Your task to perform on an android device: turn pop-ups off in chrome Image 0: 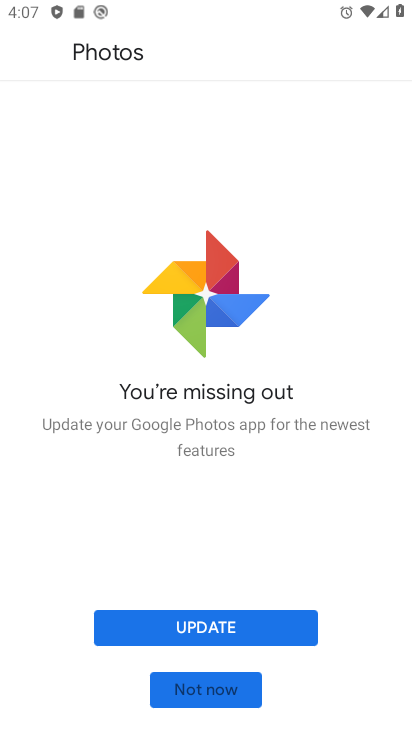
Step 0: press home button
Your task to perform on an android device: turn pop-ups off in chrome Image 1: 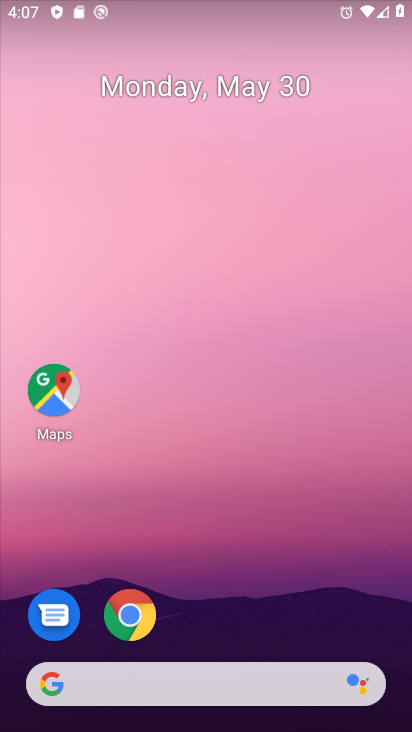
Step 1: click (140, 608)
Your task to perform on an android device: turn pop-ups off in chrome Image 2: 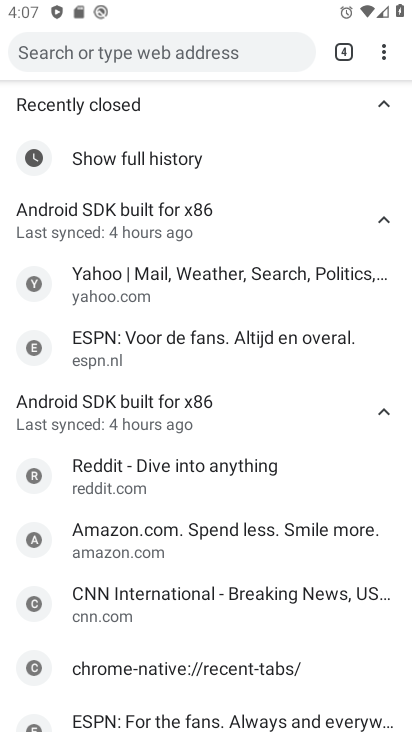
Step 2: click (383, 45)
Your task to perform on an android device: turn pop-ups off in chrome Image 3: 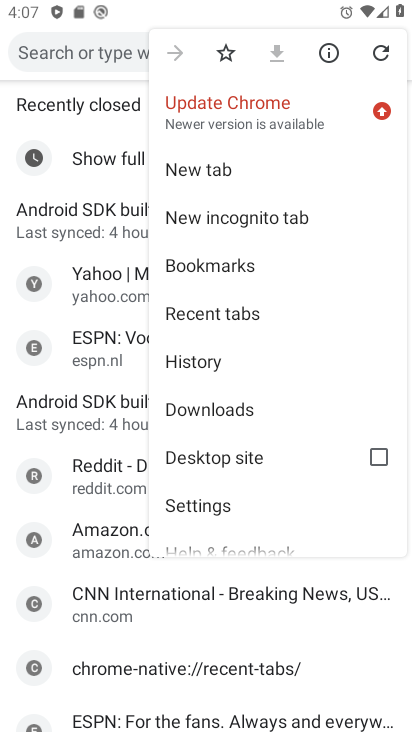
Step 3: click (236, 502)
Your task to perform on an android device: turn pop-ups off in chrome Image 4: 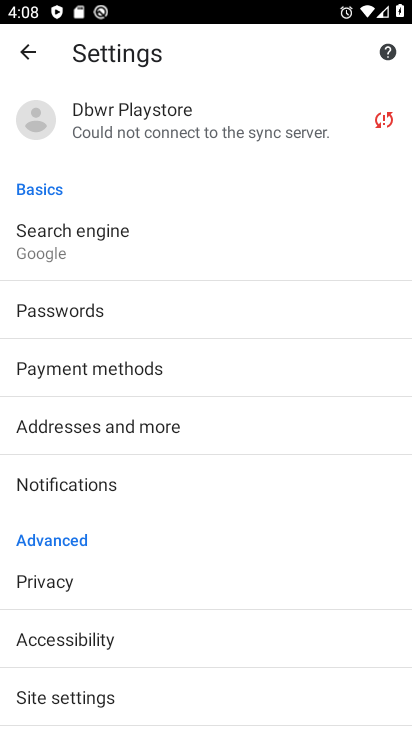
Step 4: drag from (204, 650) to (236, 456)
Your task to perform on an android device: turn pop-ups off in chrome Image 5: 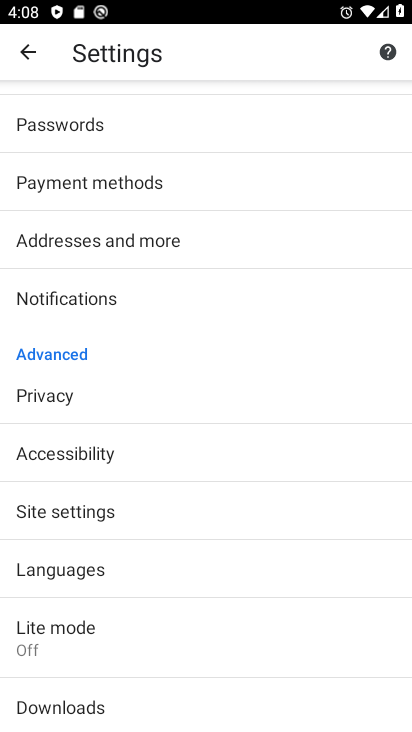
Step 5: click (220, 514)
Your task to perform on an android device: turn pop-ups off in chrome Image 6: 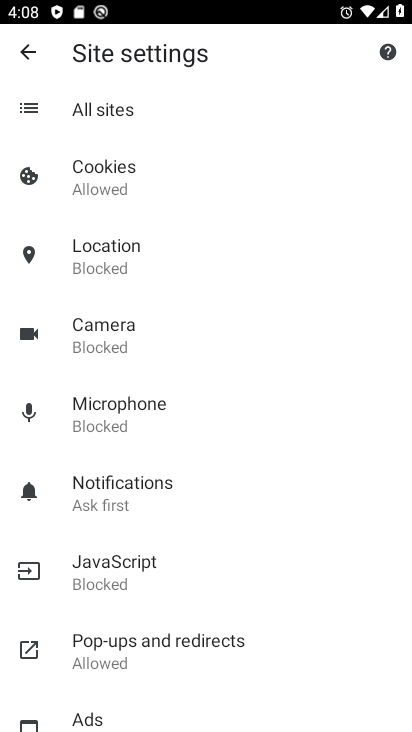
Step 6: click (231, 649)
Your task to perform on an android device: turn pop-ups off in chrome Image 7: 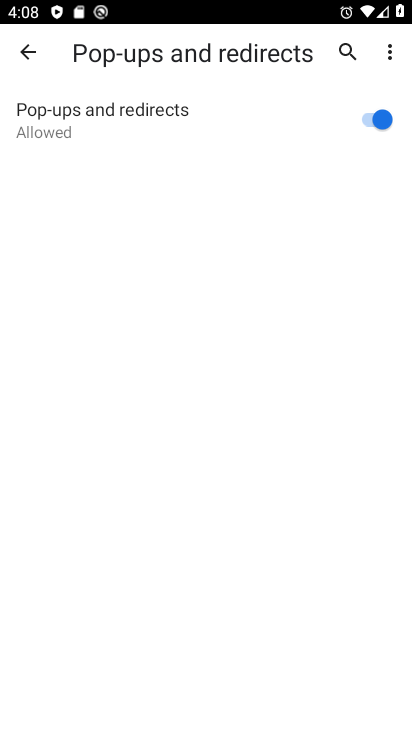
Step 7: click (374, 113)
Your task to perform on an android device: turn pop-ups off in chrome Image 8: 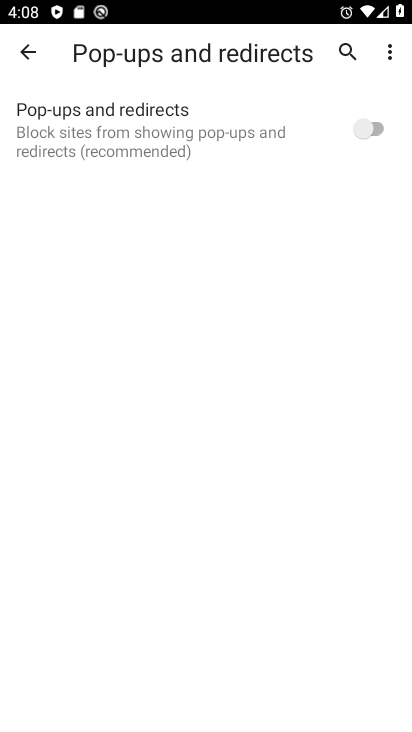
Step 8: task complete